Your task to perform on an android device: turn vacation reply on in the gmail app Image 0: 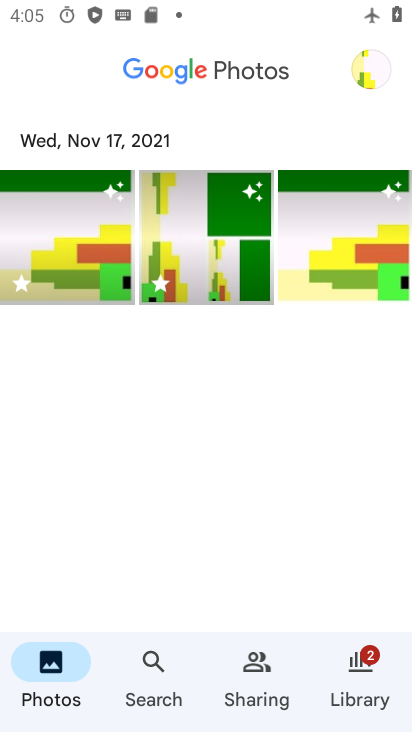
Step 0: press home button
Your task to perform on an android device: turn vacation reply on in the gmail app Image 1: 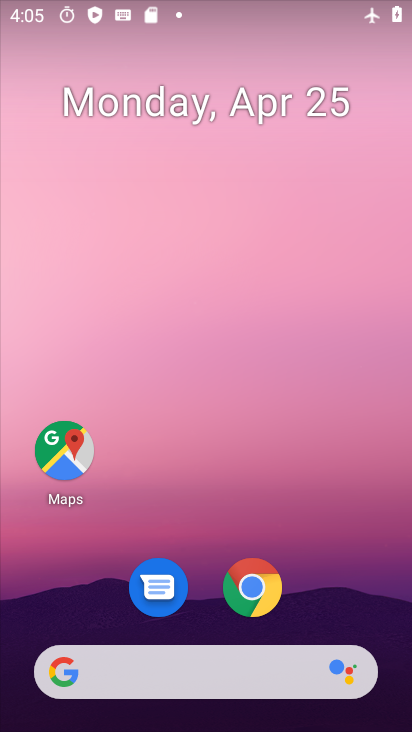
Step 1: drag from (373, 557) to (271, 81)
Your task to perform on an android device: turn vacation reply on in the gmail app Image 2: 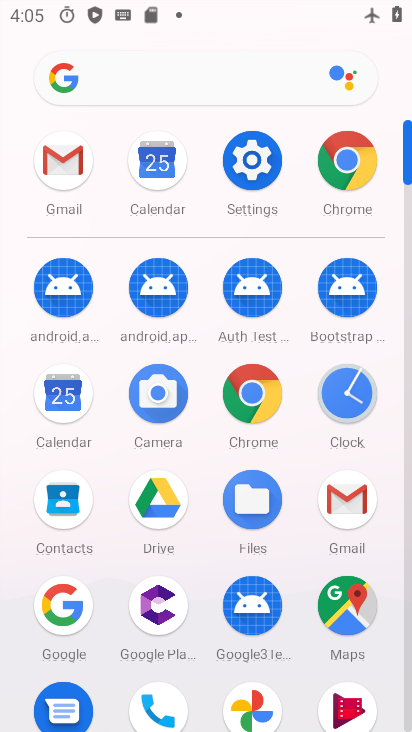
Step 2: click (333, 492)
Your task to perform on an android device: turn vacation reply on in the gmail app Image 3: 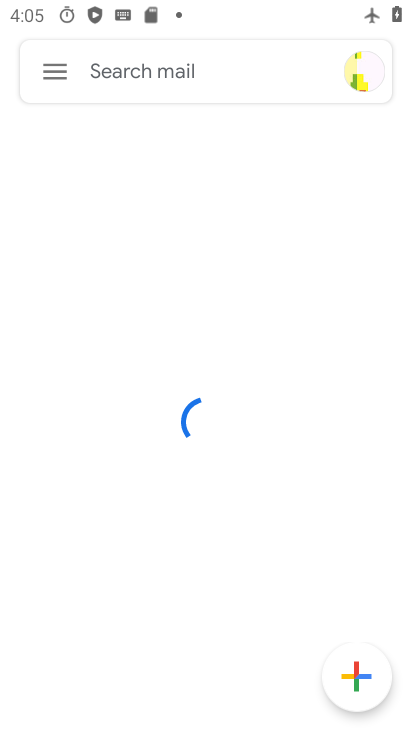
Step 3: click (51, 74)
Your task to perform on an android device: turn vacation reply on in the gmail app Image 4: 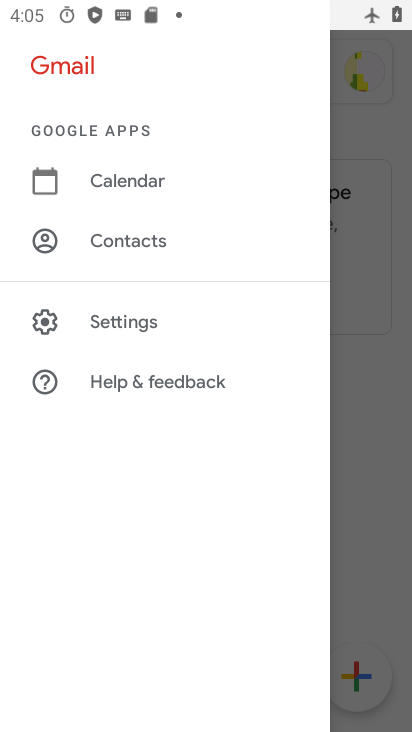
Step 4: click (132, 315)
Your task to perform on an android device: turn vacation reply on in the gmail app Image 5: 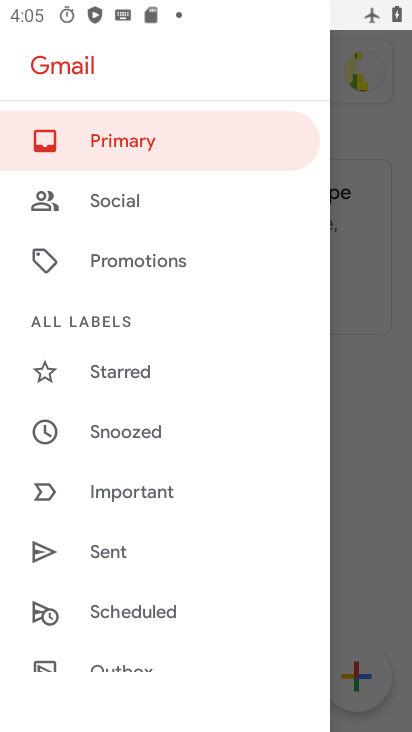
Step 5: drag from (193, 562) to (134, 129)
Your task to perform on an android device: turn vacation reply on in the gmail app Image 6: 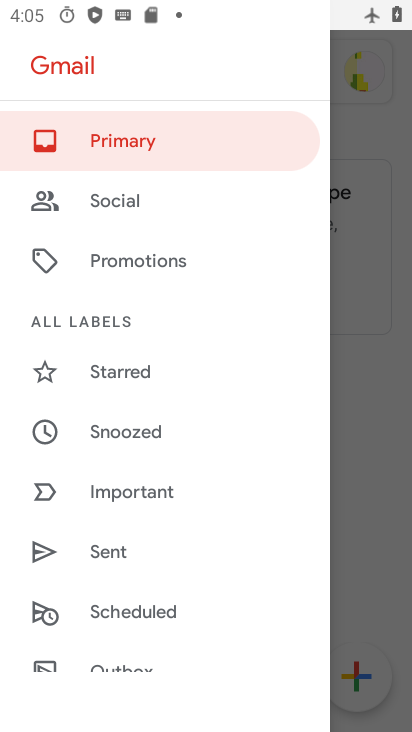
Step 6: drag from (114, 568) to (163, 152)
Your task to perform on an android device: turn vacation reply on in the gmail app Image 7: 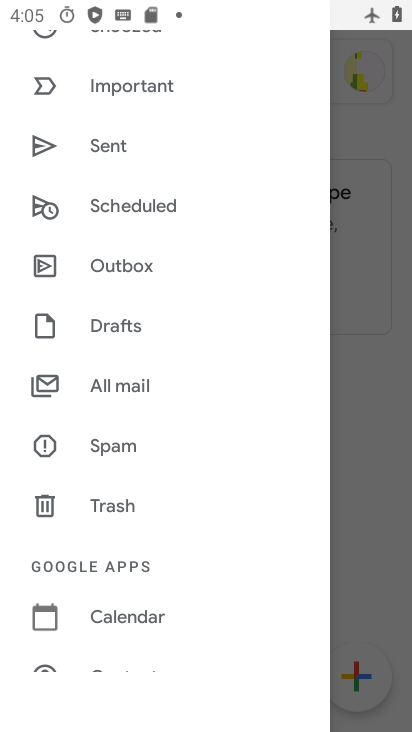
Step 7: drag from (145, 526) to (208, 103)
Your task to perform on an android device: turn vacation reply on in the gmail app Image 8: 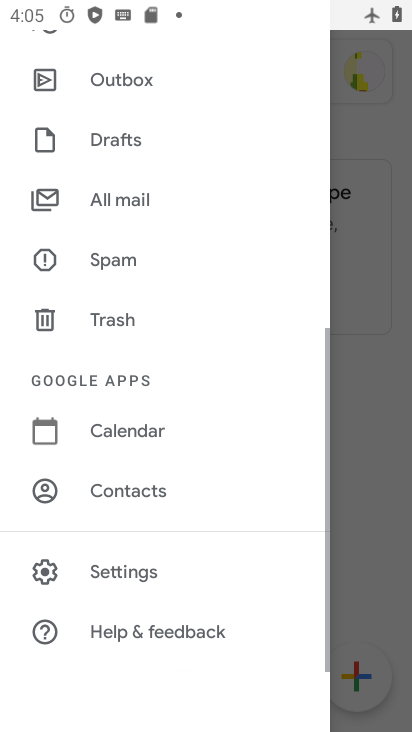
Step 8: click (128, 578)
Your task to perform on an android device: turn vacation reply on in the gmail app Image 9: 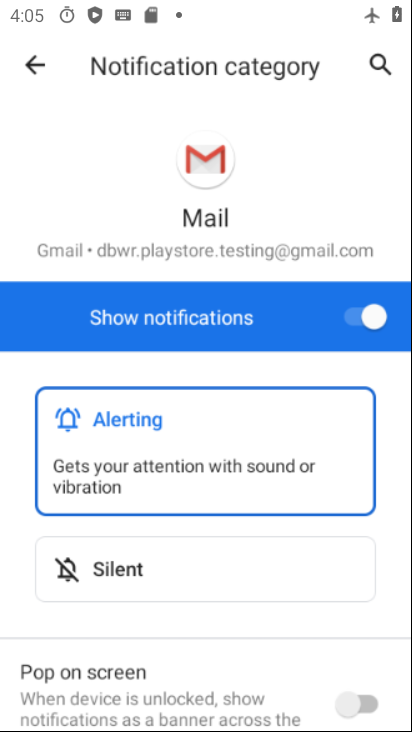
Step 9: drag from (294, 576) to (306, 14)
Your task to perform on an android device: turn vacation reply on in the gmail app Image 10: 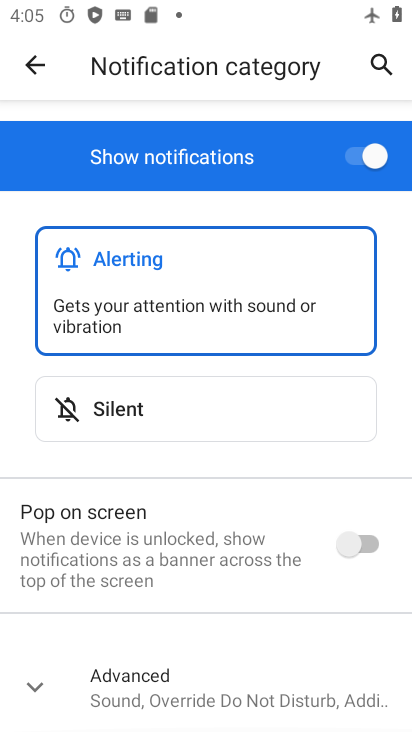
Step 10: drag from (221, 541) to (287, 103)
Your task to perform on an android device: turn vacation reply on in the gmail app Image 11: 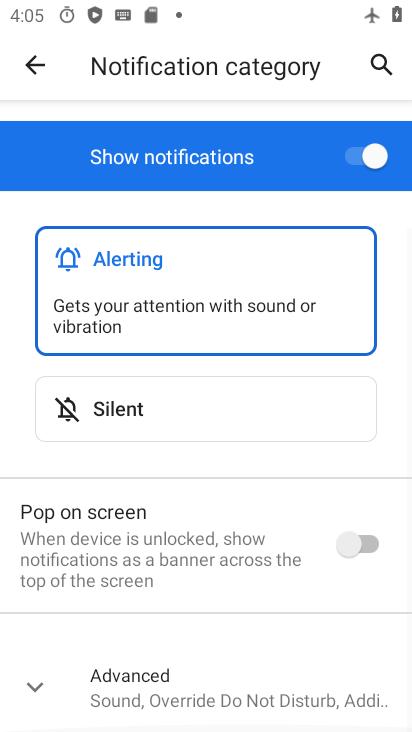
Step 11: drag from (268, 682) to (274, 218)
Your task to perform on an android device: turn vacation reply on in the gmail app Image 12: 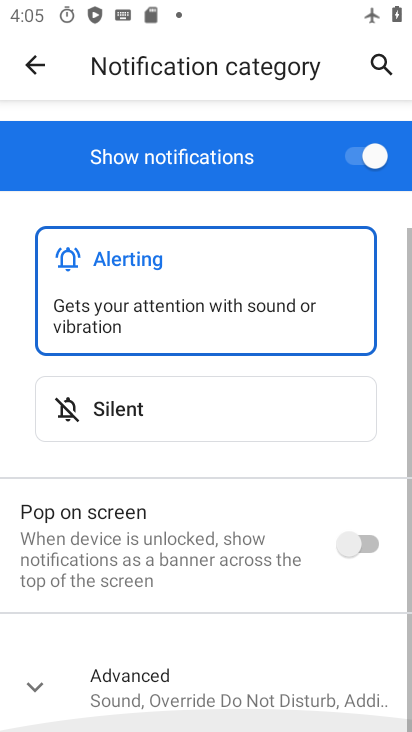
Step 12: click (172, 667)
Your task to perform on an android device: turn vacation reply on in the gmail app Image 13: 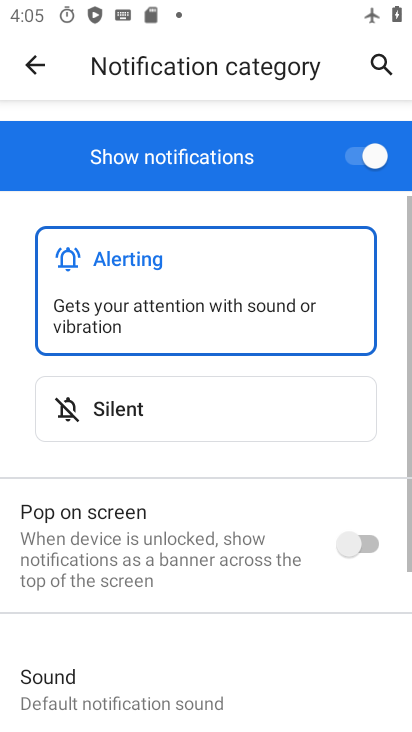
Step 13: drag from (217, 661) to (256, 168)
Your task to perform on an android device: turn vacation reply on in the gmail app Image 14: 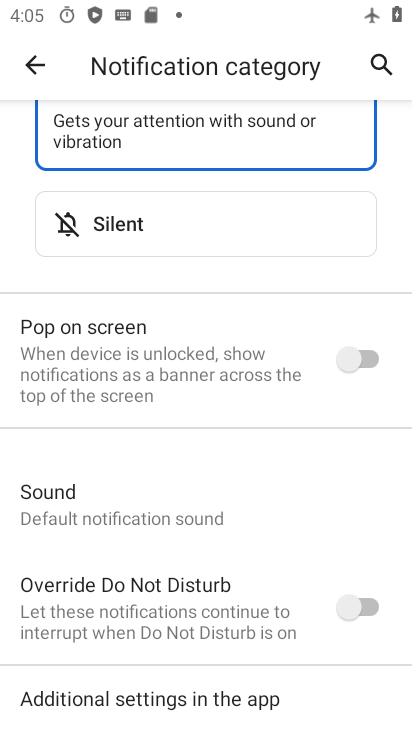
Step 14: drag from (239, 586) to (211, 135)
Your task to perform on an android device: turn vacation reply on in the gmail app Image 15: 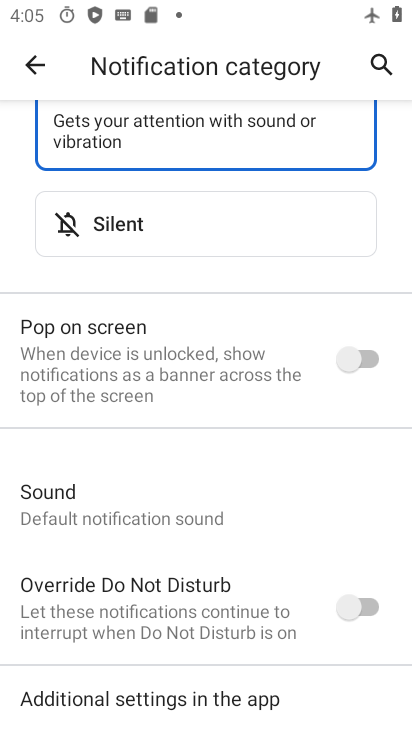
Step 15: drag from (233, 659) to (242, 159)
Your task to perform on an android device: turn vacation reply on in the gmail app Image 16: 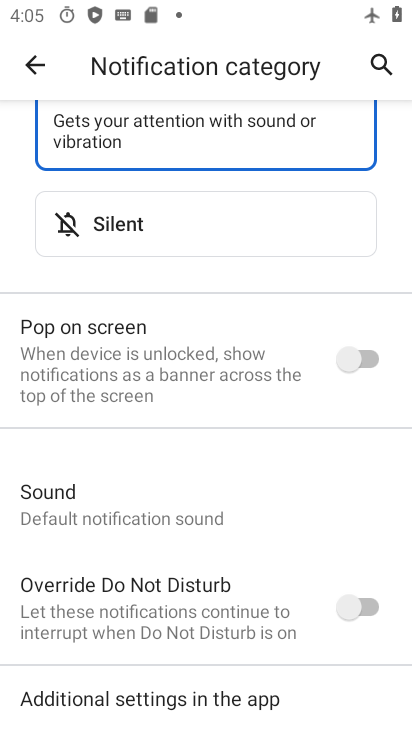
Step 16: click (39, 63)
Your task to perform on an android device: turn vacation reply on in the gmail app Image 17: 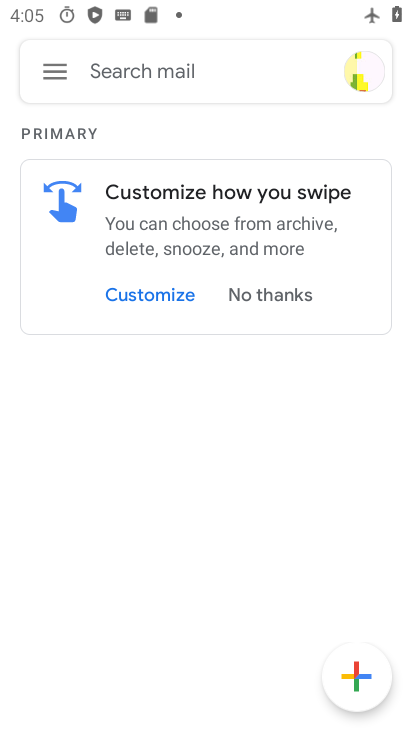
Step 17: click (58, 67)
Your task to perform on an android device: turn vacation reply on in the gmail app Image 18: 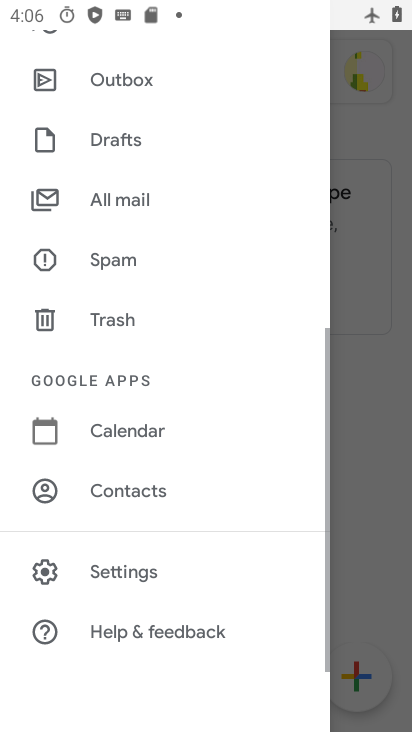
Step 18: click (144, 579)
Your task to perform on an android device: turn vacation reply on in the gmail app Image 19: 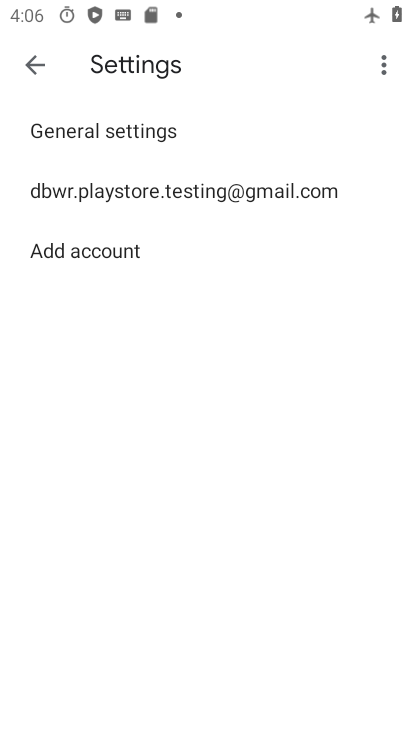
Step 19: click (224, 187)
Your task to perform on an android device: turn vacation reply on in the gmail app Image 20: 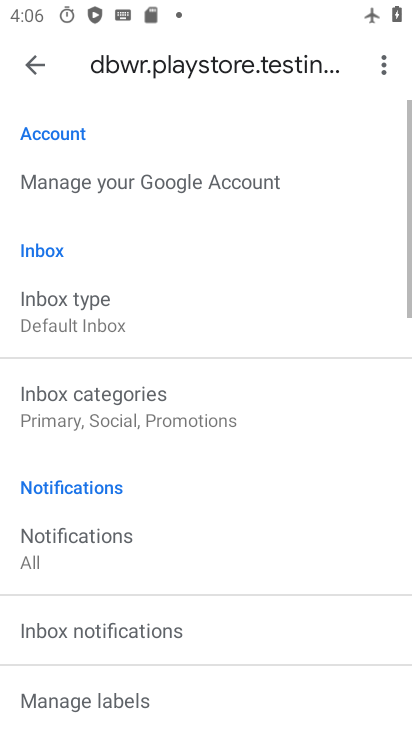
Step 20: drag from (247, 564) to (275, 115)
Your task to perform on an android device: turn vacation reply on in the gmail app Image 21: 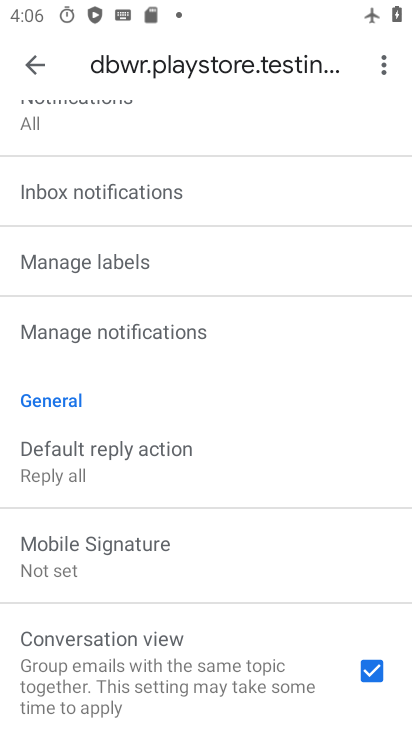
Step 21: drag from (213, 553) to (247, 172)
Your task to perform on an android device: turn vacation reply on in the gmail app Image 22: 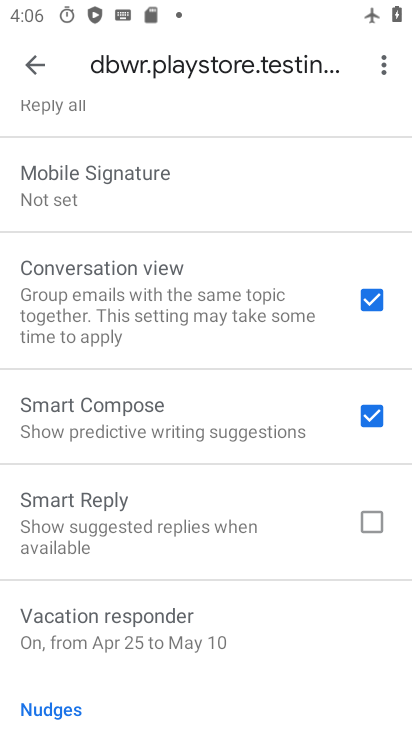
Step 22: click (200, 648)
Your task to perform on an android device: turn vacation reply on in the gmail app Image 23: 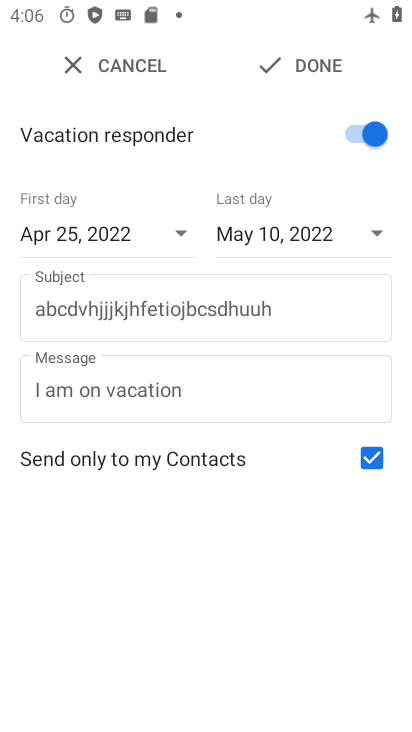
Step 23: task complete